Your task to perform on an android device: Turn off the flashlight Image 0: 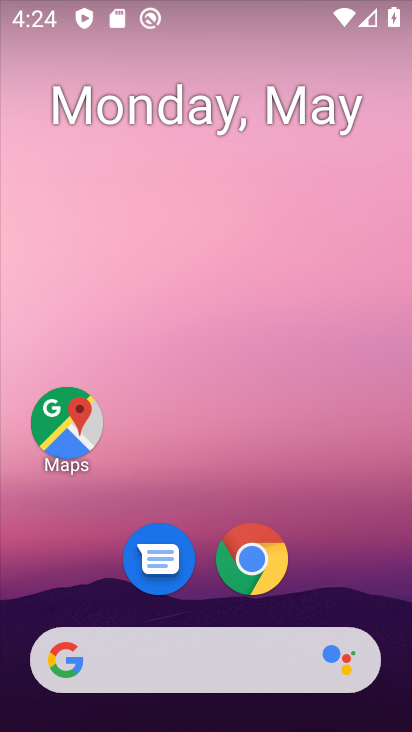
Step 0: drag from (252, 12) to (282, 650)
Your task to perform on an android device: Turn off the flashlight Image 1: 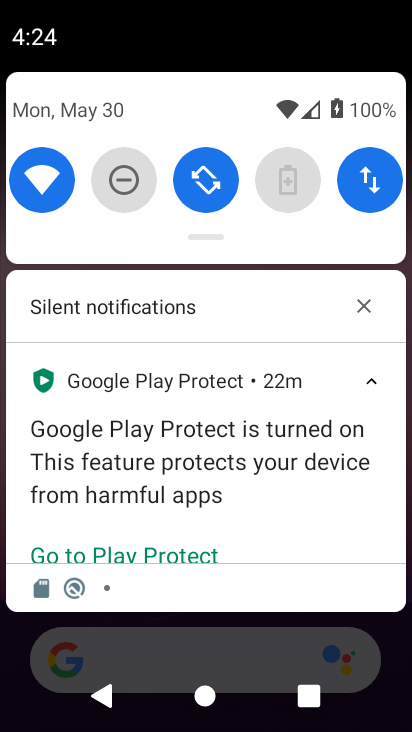
Step 1: task complete